Your task to perform on an android device: Add "logitech g910" to the cart on costco.com, then select checkout. Image 0: 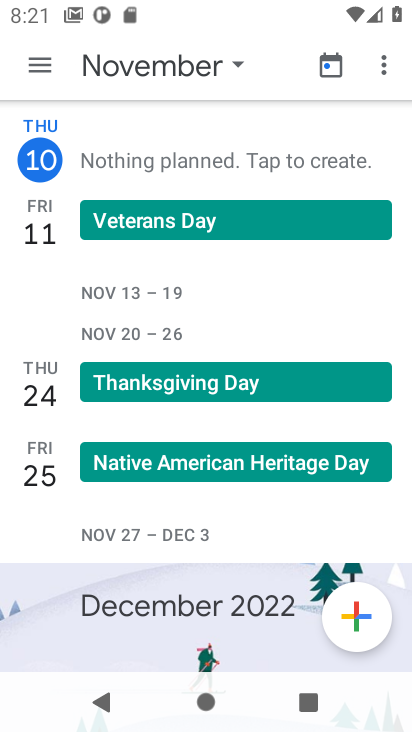
Step 0: press home button
Your task to perform on an android device: Add "logitech g910" to the cart on costco.com, then select checkout. Image 1: 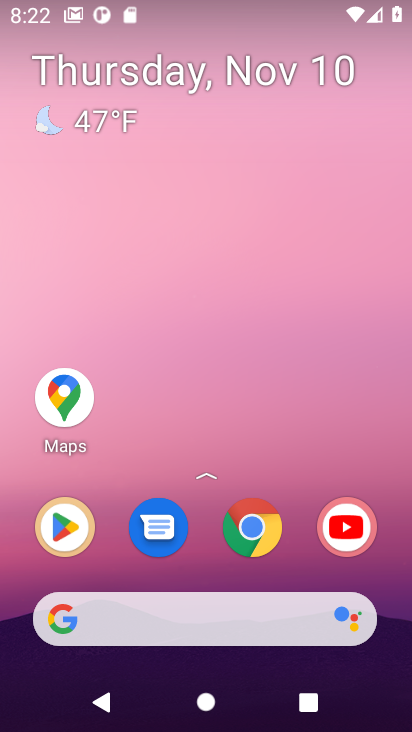
Step 1: click (408, 274)
Your task to perform on an android device: Add "logitech g910" to the cart on costco.com, then select checkout. Image 2: 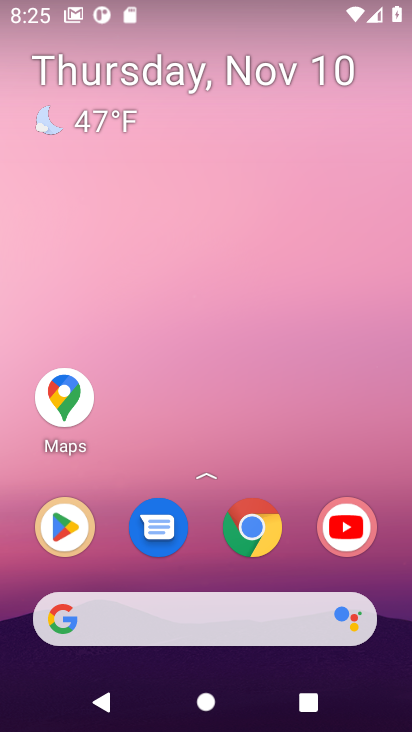
Step 2: drag from (170, 551) to (119, 57)
Your task to perform on an android device: Add "logitech g910" to the cart on costco.com, then select checkout. Image 3: 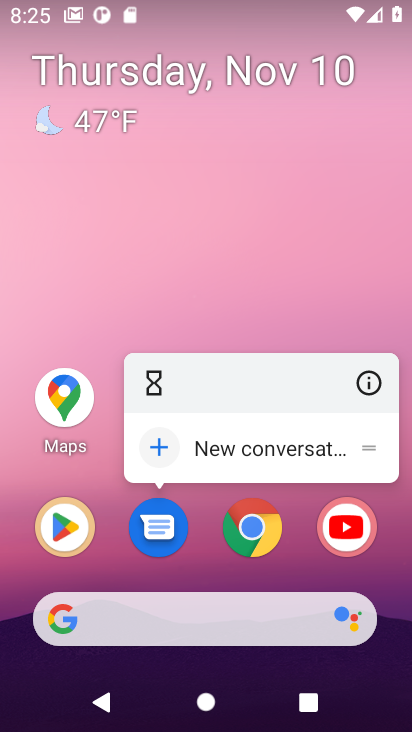
Step 3: click (344, 270)
Your task to perform on an android device: Add "logitech g910" to the cart on costco.com, then select checkout. Image 4: 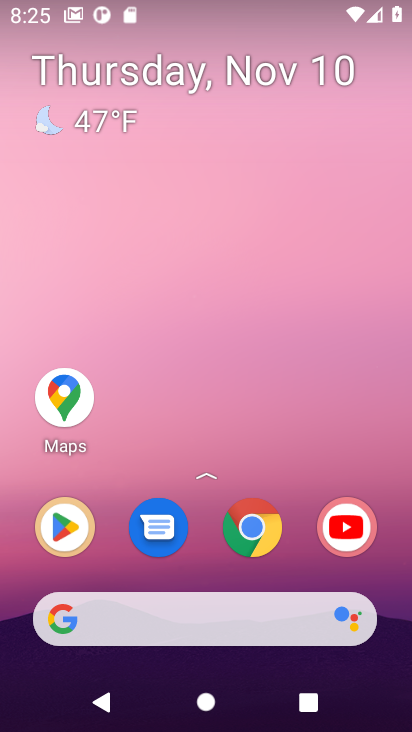
Step 4: drag from (217, 642) to (120, 45)
Your task to perform on an android device: Add "logitech g910" to the cart on costco.com, then select checkout. Image 5: 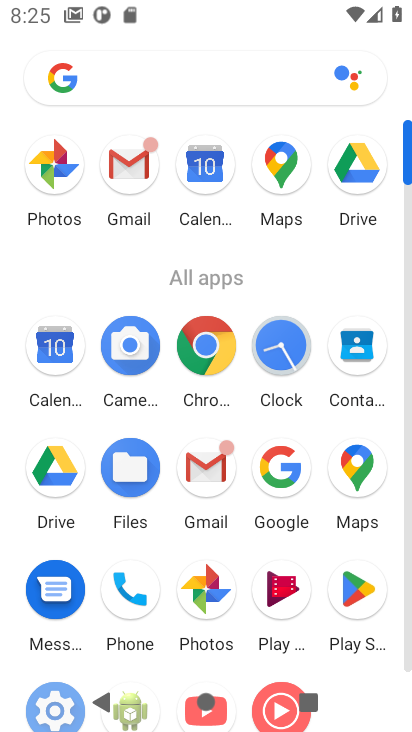
Step 5: click (220, 348)
Your task to perform on an android device: Add "logitech g910" to the cart on costco.com, then select checkout. Image 6: 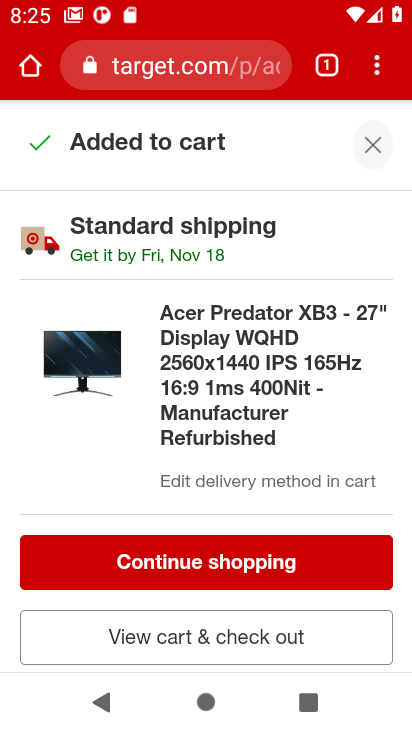
Step 6: click (157, 55)
Your task to perform on an android device: Add "logitech g910" to the cart on costco.com, then select checkout. Image 7: 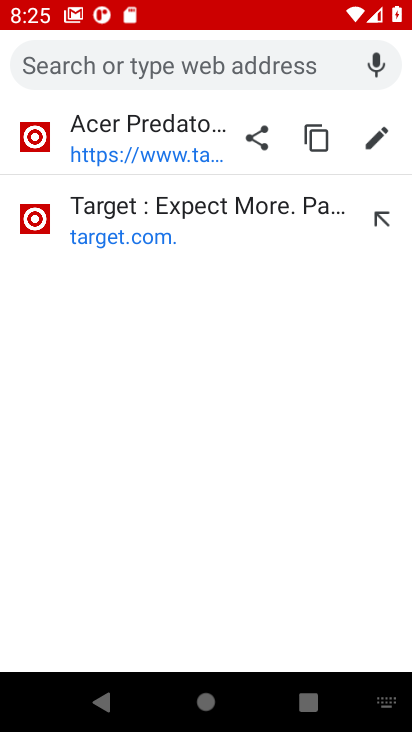
Step 7: type "costco.com"
Your task to perform on an android device: Add "logitech g910" to the cart on costco.com, then select checkout. Image 8: 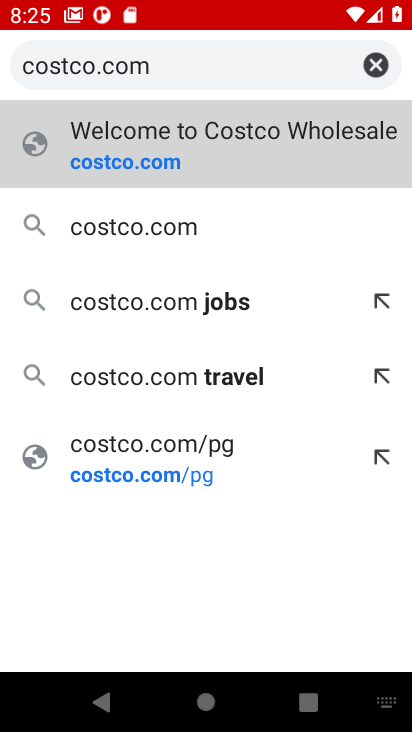
Step 8: press enter
Your task to perform on an android device: Add "logitech g910" to the cart on costco.com, then select checkout. Image 9: 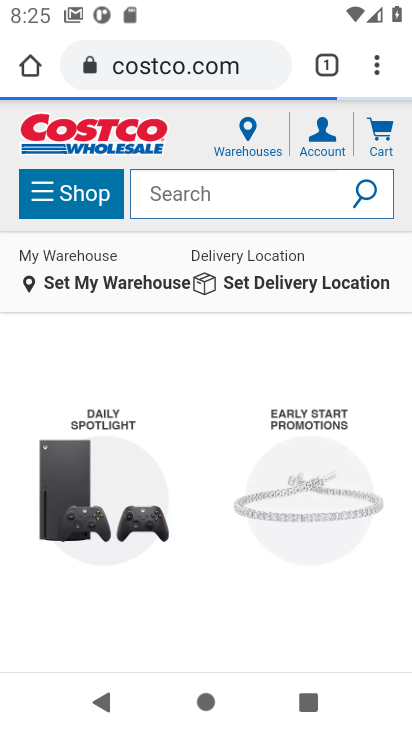
Step 9: click (195, 195)
Your task to perform on an android device: Add "logitech g910" to the cart on costco.com, then select checkout. Image 10: 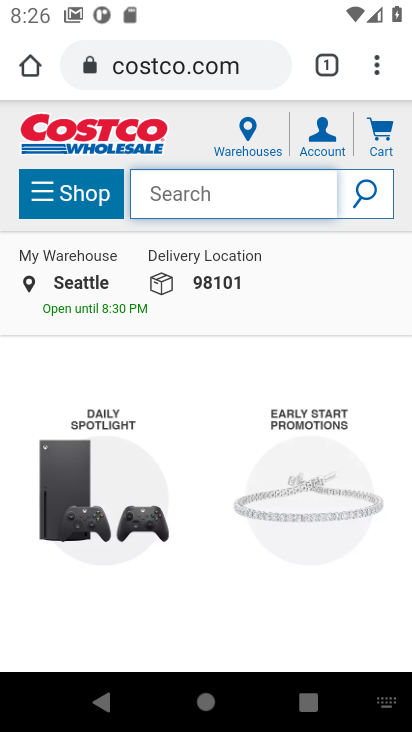
Step 10: type "logitech g910"
Your task to perform on an android device: Add "logitech g910" to the cart on costco.com, then select checkout. Image 11: 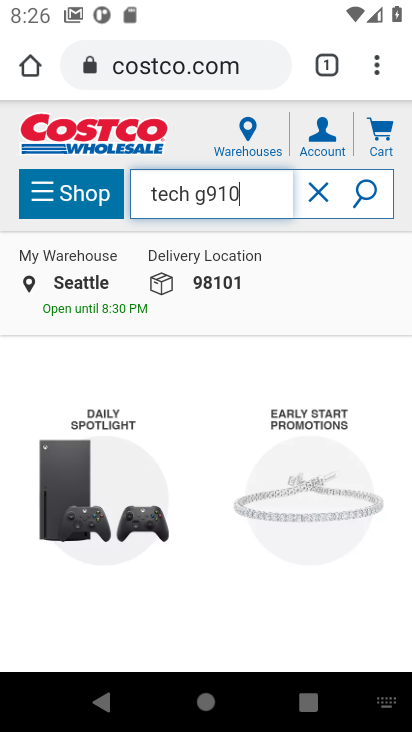
Step 11: press enter
Your task to perform on an android device: Add "logitech g910" to the cart on costco.com, then select checkout. Image 12: 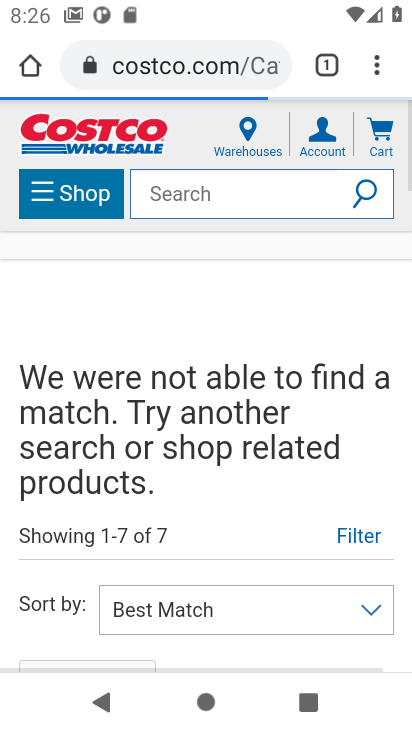
Step 12: click (222, 242)
Your task to perform on an android device: Add "logitech g910" to the cart on costco.com, then select checkout. Image 13: 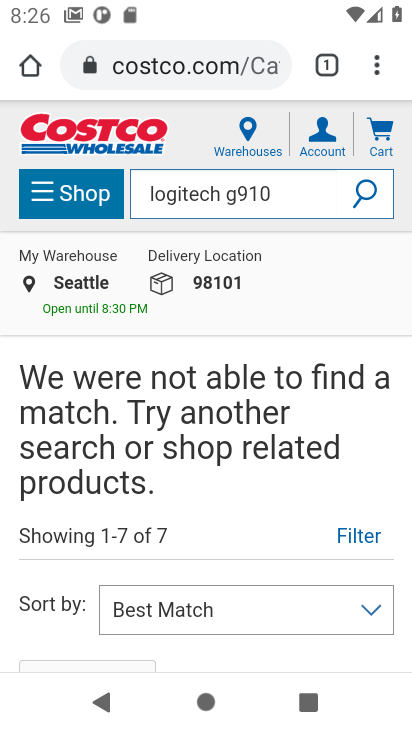
Step 13: drag from (263, 475) to (303, 315)
Your task to perform on an android device: Add "logitech g910" to the cart on costco.com, then select checkout. Image 14: 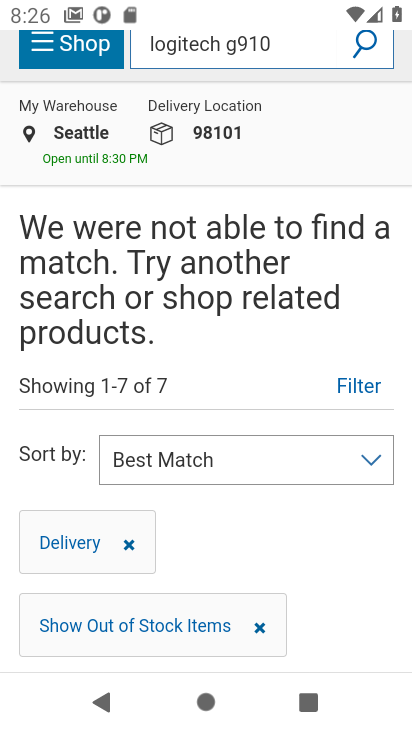
Step 14: drag from (196, 563) to (197, 251)
Your task to perform on an android device: Add "logitech g910" to the cart on costco.com, then select checkout. Image 15: 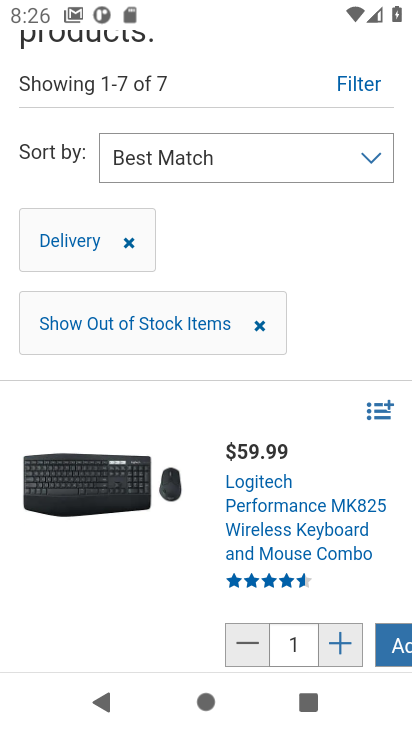
Step 15: drag from (287, 482) to (296, 198)
Your task to perform on an android device: Add "logitech g910" to the cart on costco.com, then select checkout. Image 16: 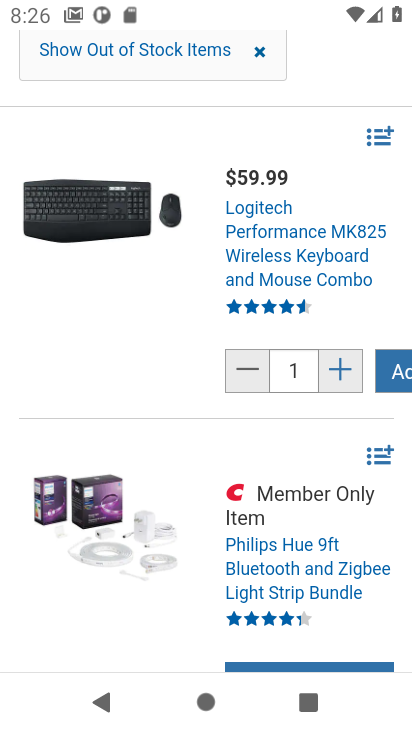
Step 16: click (401, 377)
Your task to perform on an android device: Add "logitech g910" to the cart on costco.com, then select checkout. Image 17: 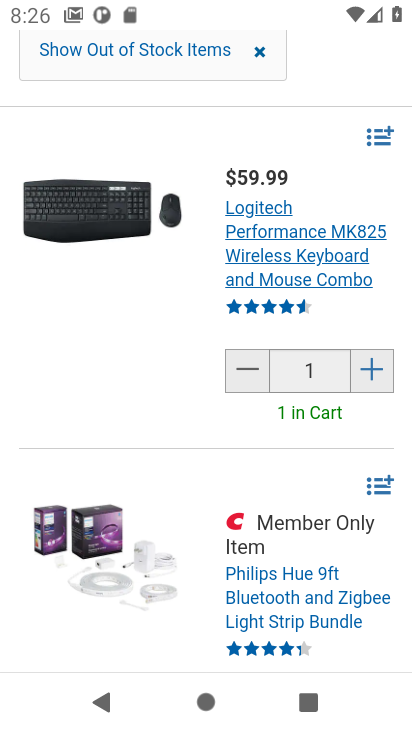
Step 17: drag from (232, 145) to (284, 433)
Your task to perform on an android device: Add "logitech g910" to the cart on costco.com, then select checkout. Image 18: 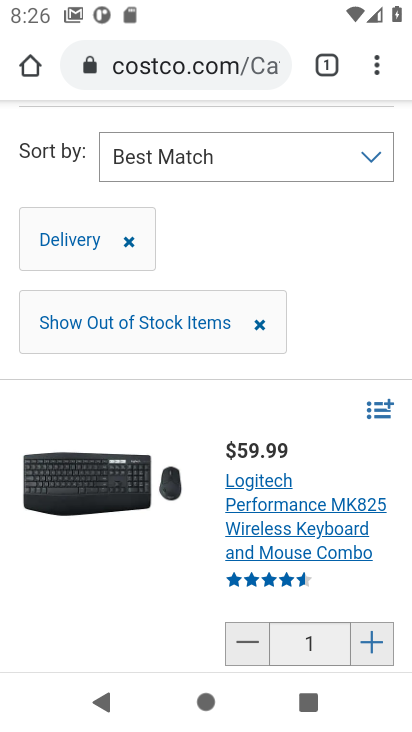
Step 18: drag from (292, 288) to (349, 480)
Your task to perform on an android device: Add "logitech g910" to the cart on costco.com, then select checkout. Image 19: 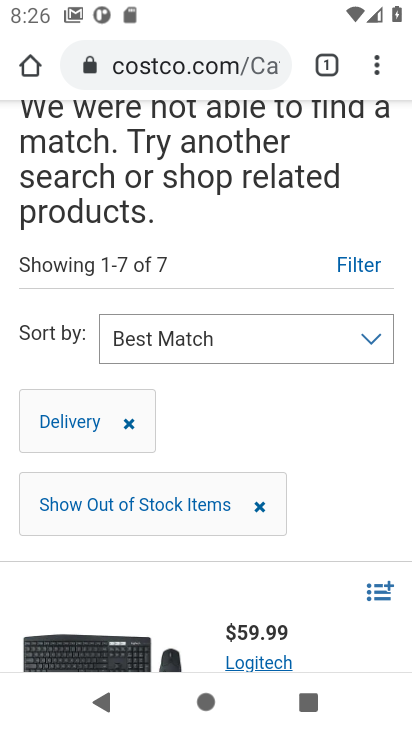
Step 19: drag from (265, 192) to (345, 506)
Your task to perform on an android device: Add "logitech g910" to the cart on costco.com, then select checkout. Image 20: 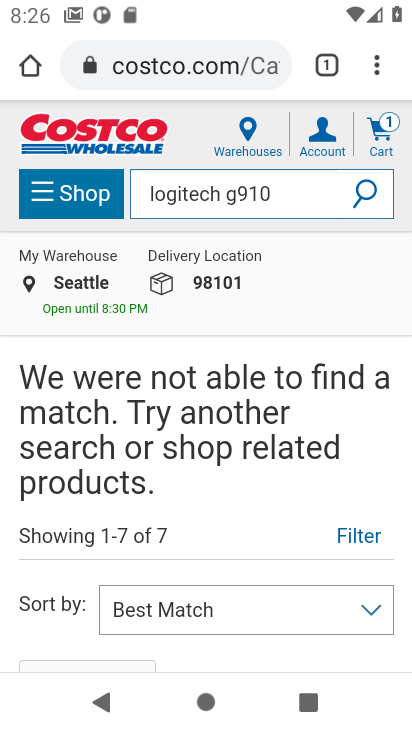
Step 20: click (375, 121)
Your task to perform on an android device: Add "logitech g910" to the cart on costco.com, then select checkout. Image 21: 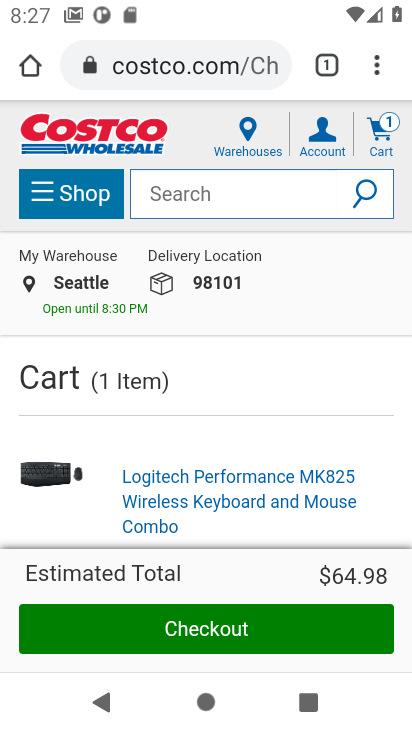
Step 21: click (212, 609)
Your task to perform on an android device: Add "logitech g910" to the cart on costco.com, then select checkout. Image 22: 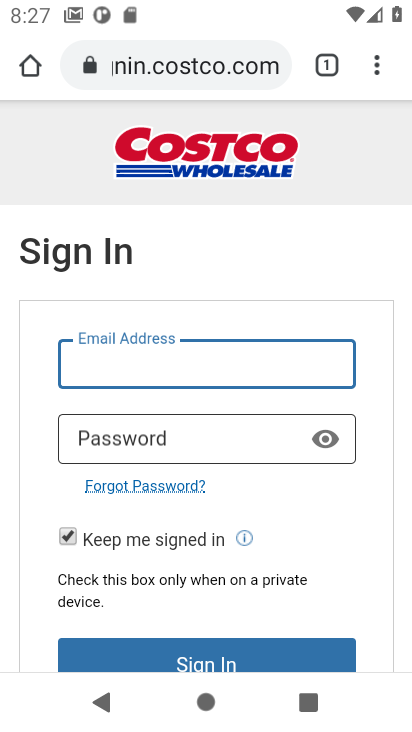
Step 22: task complete